Your task to perform on an android device: check data usage Image 0: 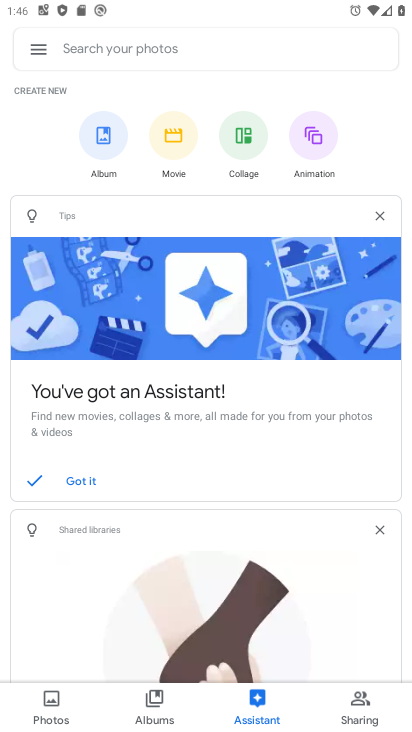
Step 0: press home button
Your task to perform on an android device: check data usage Image 1: 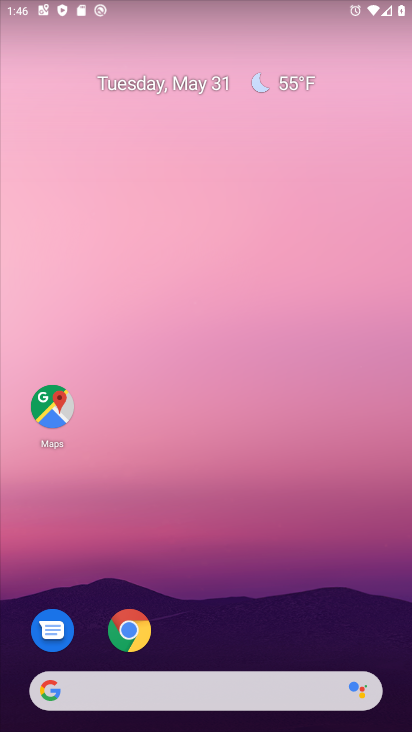
Step 1: drag from (219, 634) to (219, 211)
Your task to perform on an android device: check data usage Image 2: 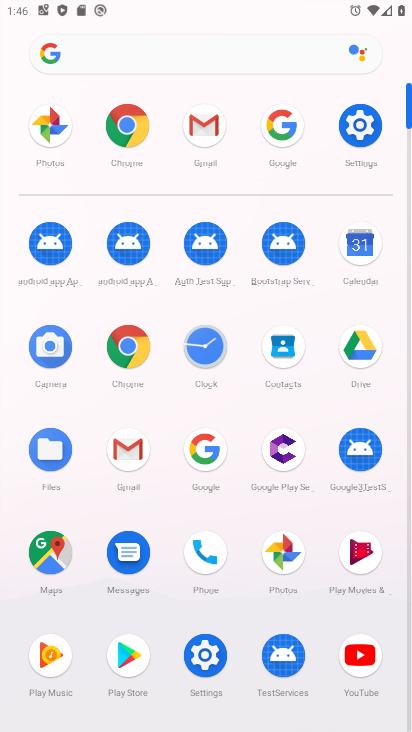
Step 2: click (358, 123)
Your task to perform on an android device: check data usage Image 3: 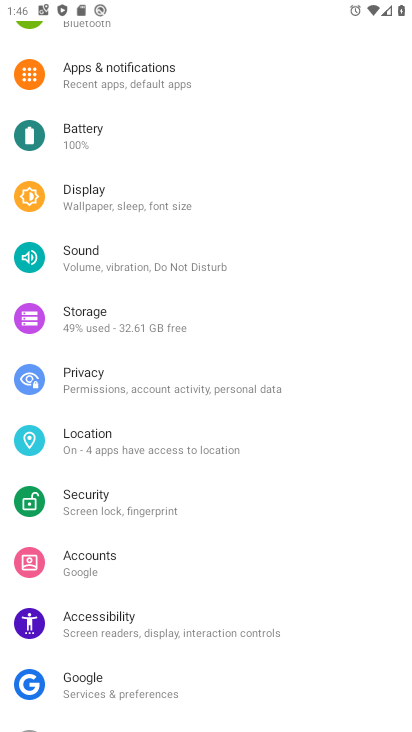
Step 3: drag from (104, 53) to (160, 437)
Your task to perform on an android device: check data usage Image 4: 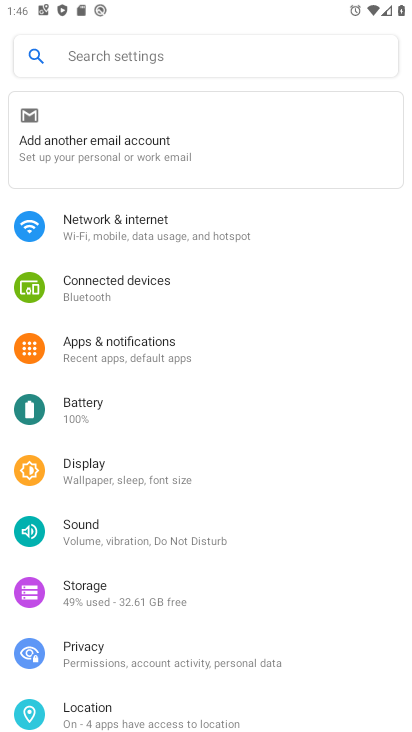
Step 4: click (115, 230)
Your task to perform on an android device: check data usage Image 5: 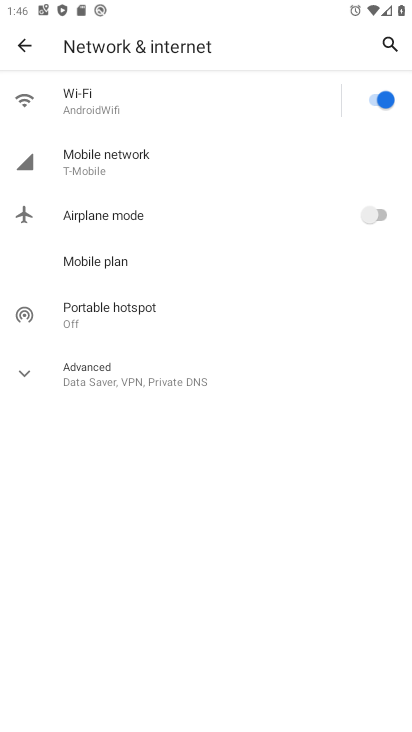
Step 5: click (101, 159)
Your task to perform on an android device: check data usage Image 6: 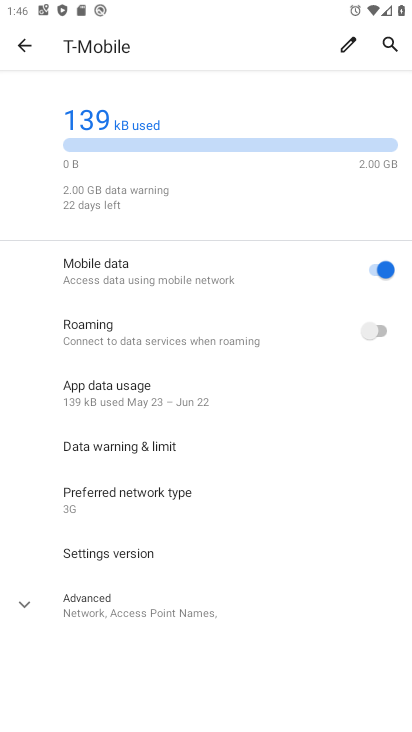
Step 6: task complete